Your task to perform on an android device: empty trash in google photos Image 0: 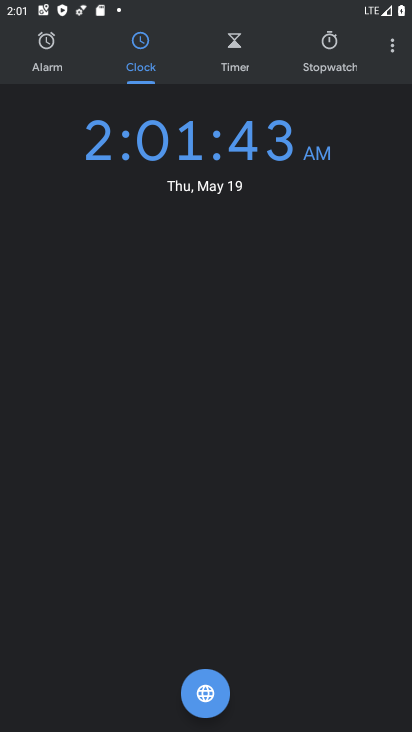
Step 0: press home button
Your task to perform on an android device: empty trash in google photos Image 1: 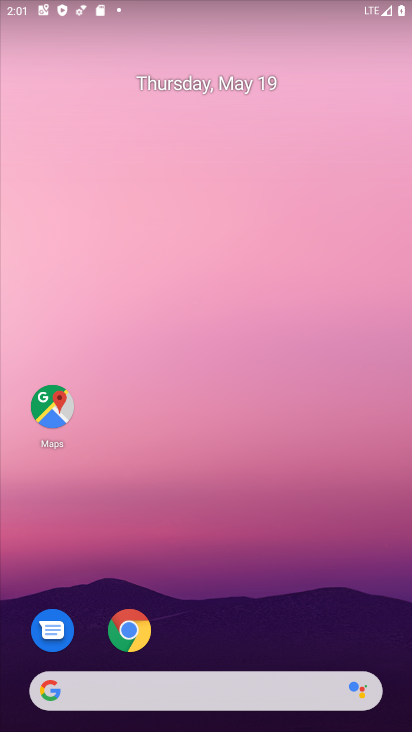
Step 1: drag from (392, 652) to (315, 142)
Your task to perform on an android device: empty trash in google photos Image 2: 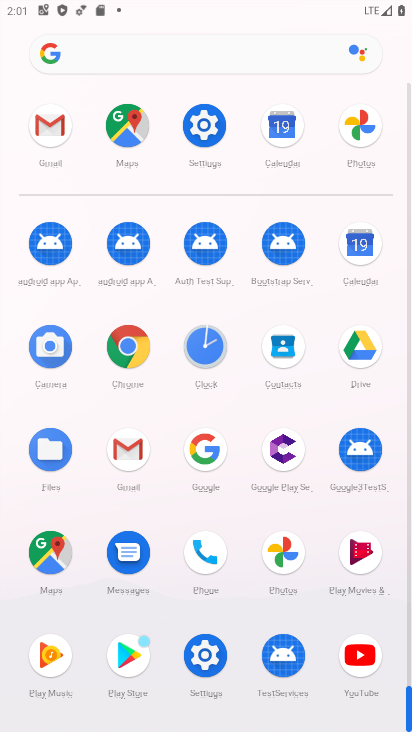
Step 2: click (281, 551)
Your task to perform on an android device: empty trash in google photos Image 3: 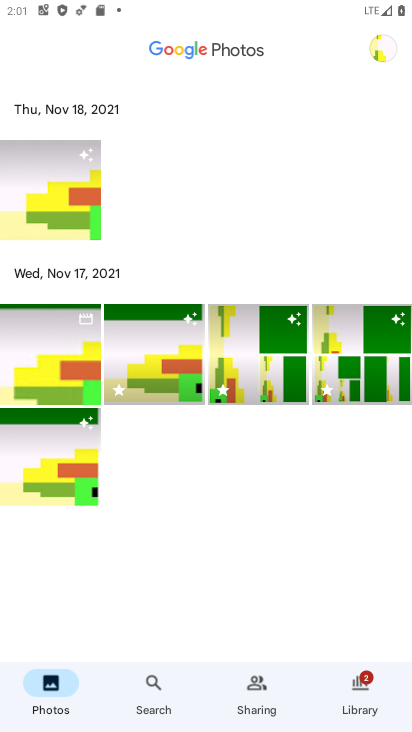
Step 3: click (361, 686)
Your task to perform on an android device: empty trash in google photos Image 4: 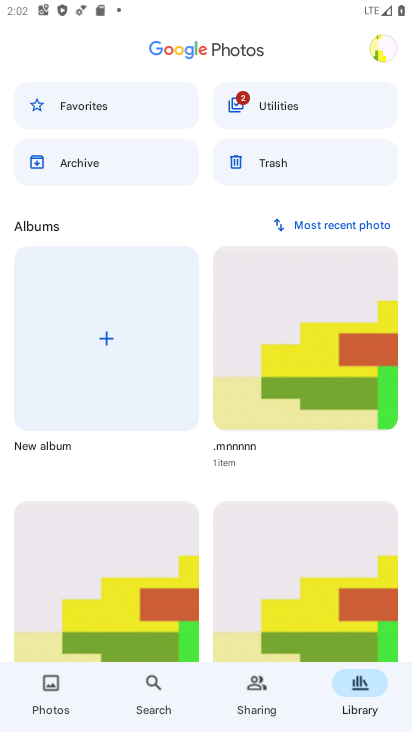
Step 4: click (287, 156)
Your task to perform on an android device: empty trash in google photos Image 5: 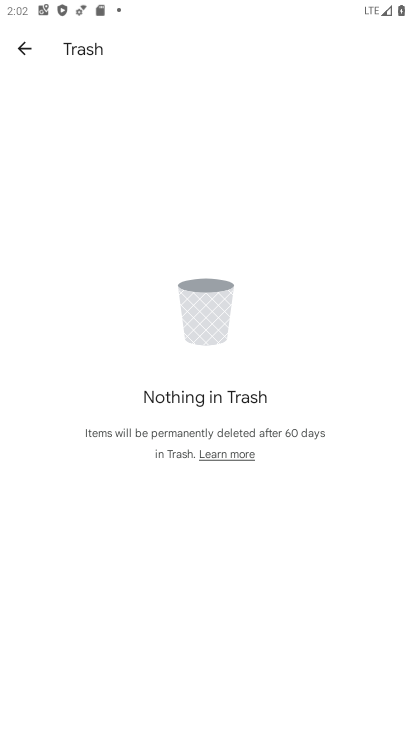
Step 5: task complete